Your task to perform on an android device: Search for Mexican restaurants on Maps Image 0: 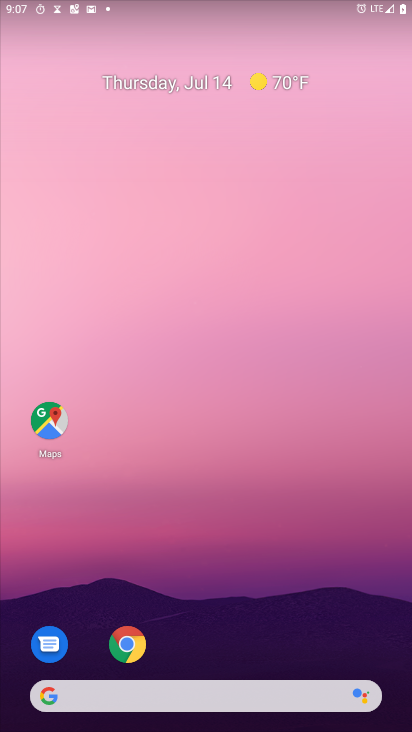
Step 0: click (54, 422)
Your task to perform on an android device: Search for Mexican restaurants on Maps Image 1: 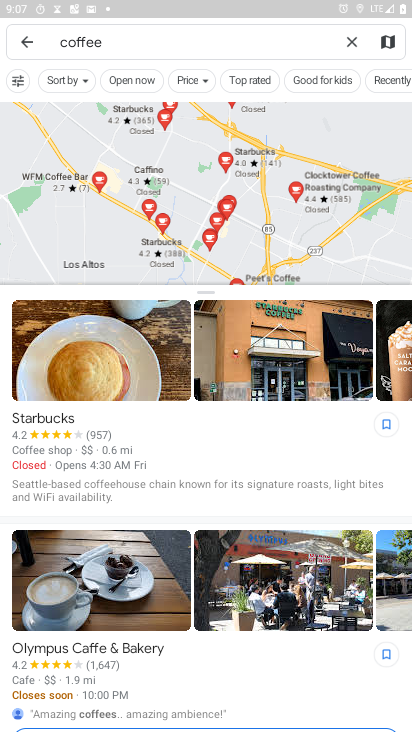
Step 1: click (347, 37)
Your task to perform on an android device: Search for Mexican restaurants on Maps Image 2: 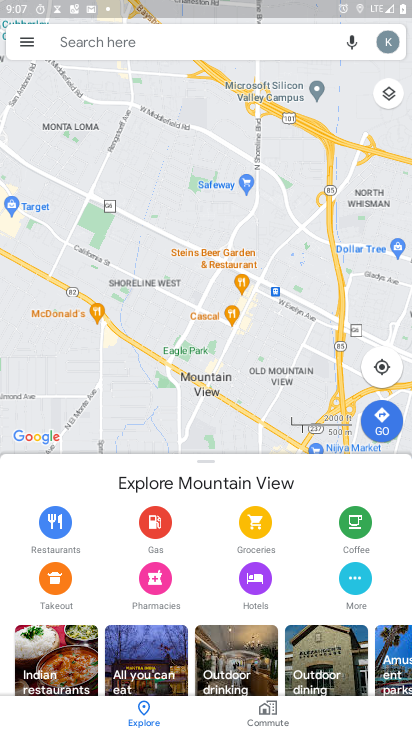
Step 2: click (225, 44)
Your task to perform on an android device: Search for Mexican restaurants on Maps Image 3: 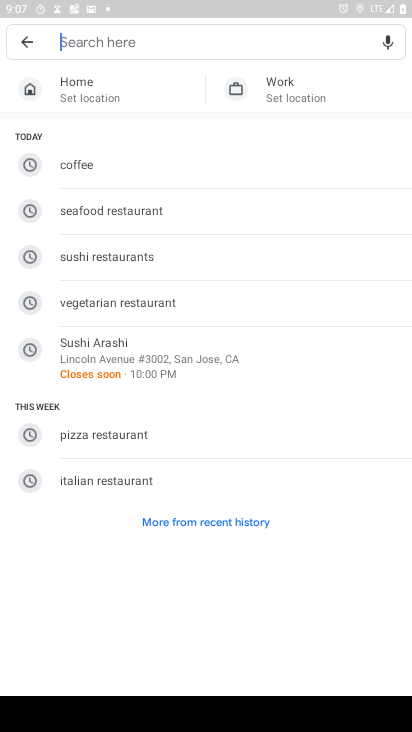
Step 3: type "Mexican restaurants"
Your task to perform on an android device: Search for Mexican restaurants on Maps Image 4: 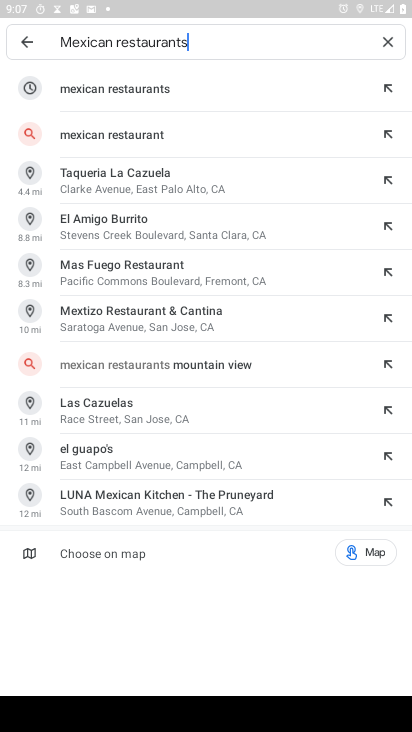
Step 4: click (142, 87)
Your task to perform on an android device: Search for Mexican restaurants on Maps Image 5: 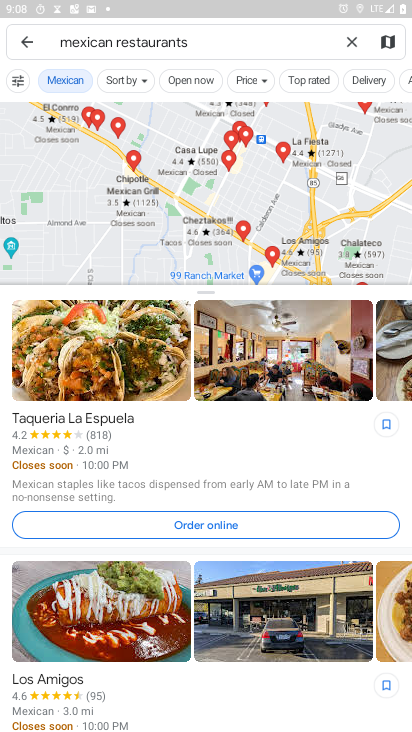
Step 5: task complete